Your task to perform on an android device: check battery use Image 0: 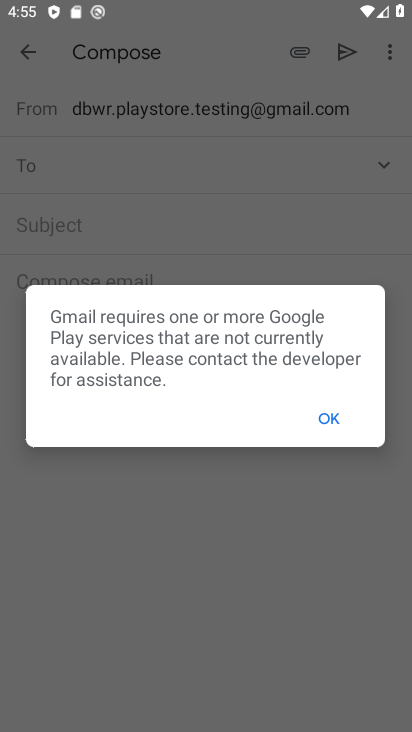
Step 0: press back button
Your task to perform on an android device: check battery use Image 1: 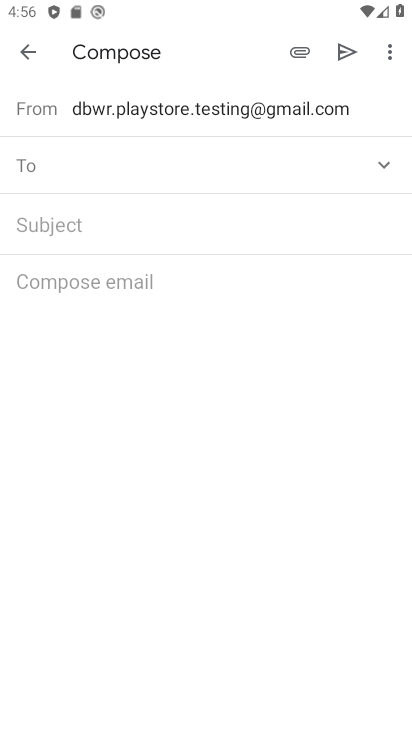
Step 1: press back button
Your task to perform on an android device: check battery use Image 2: 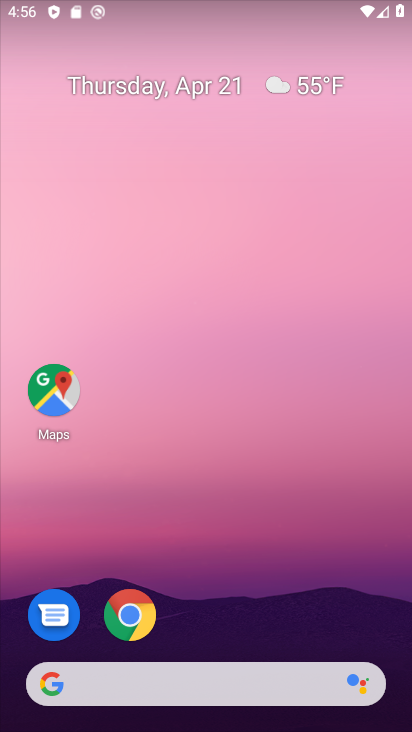
Step 2: drag from (265, 588) to (187, 13)
Your task to perform on an android device: check battery use Image 3: 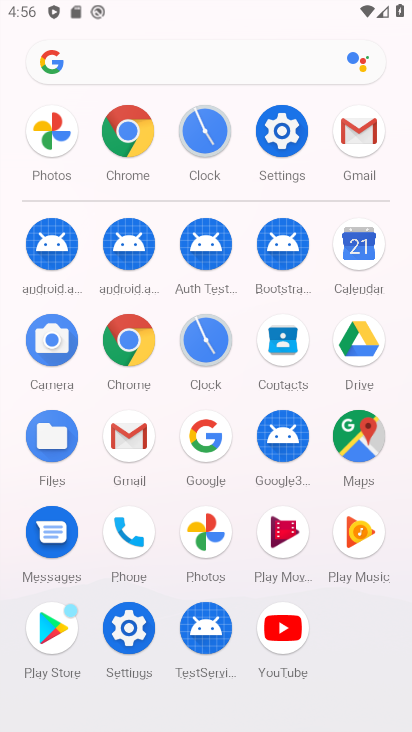
Step 3: drag from (3, 519) to (0, 271)
Your task to perform on an android device: check battery use Image 4: 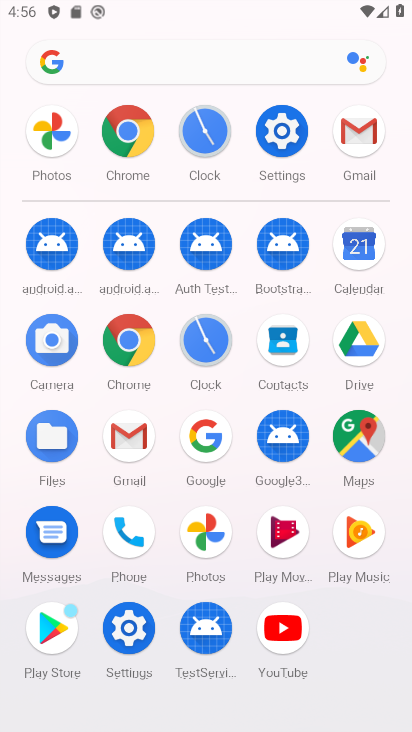
Step 4: click (282, 133)
Your task to perform on an android device: check battery use Image 5: 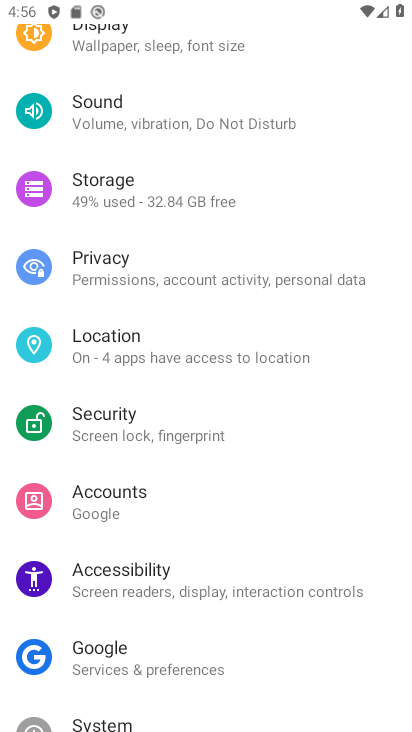
Step 5: drag from (258, 134) to (223, 496)
Your task to perform on an android device: check battery use Image 6: 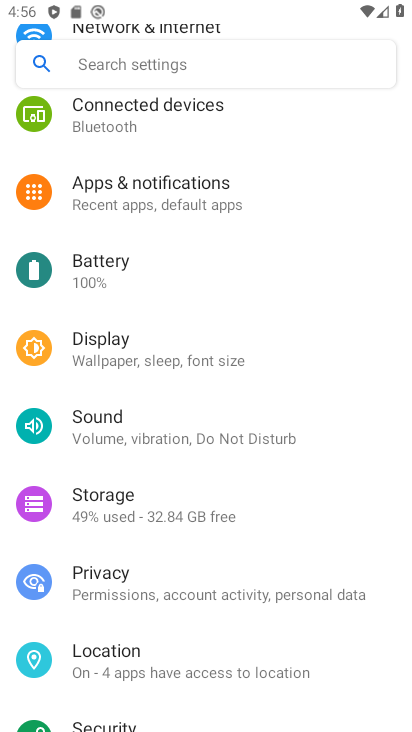
Step 6: click (120, 273)
Your task to perform on an android device: check battery use Image 7: 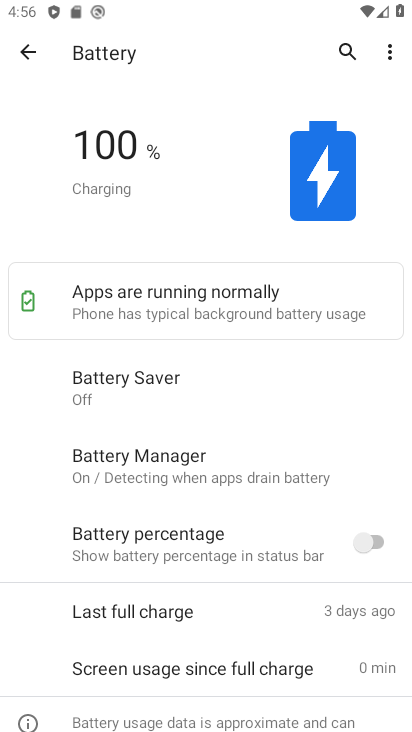
Step 7: drag from (264, 189) to (209, 489)
Your task to perform on an android device: check battery use Image 8: 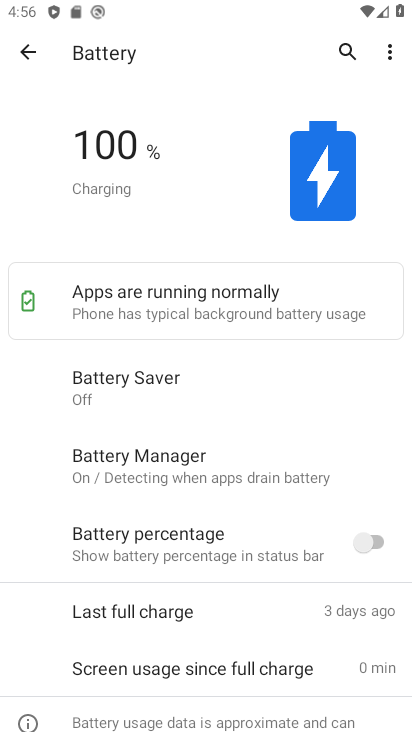
Step 8: click (387, 48)
Your task to perform on an android device: check battery use Image 9: 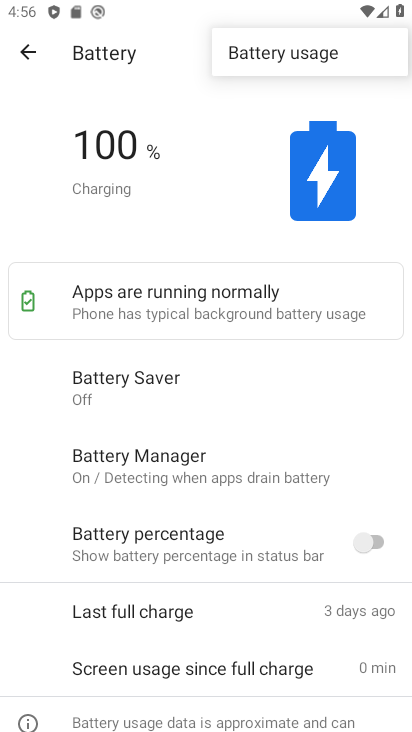
Step 9: click (312, 48)
Your task to perform on an android device: check battery use Image 10: 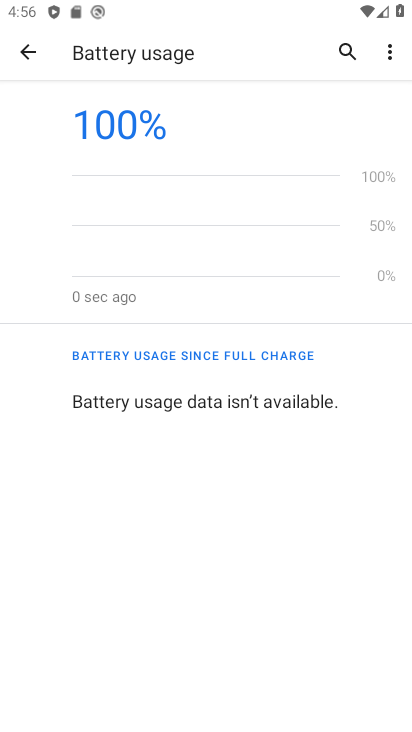
Step 10: task complete